Your task to perform on an android device: Open accessibility settings Image 0: 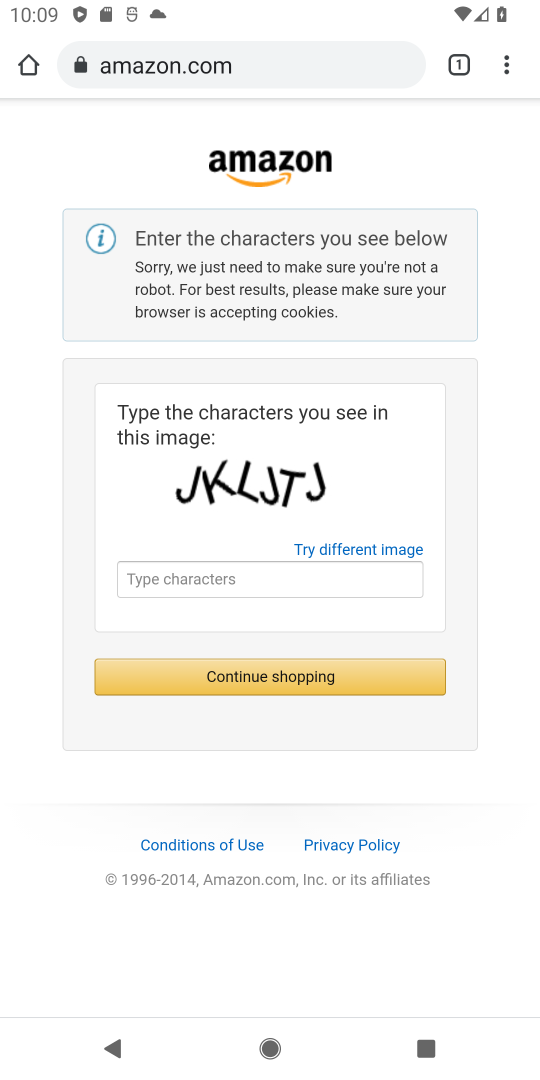
Step 0: press home button
Your task to perform on an android device: Open accessibility settings Image 1: 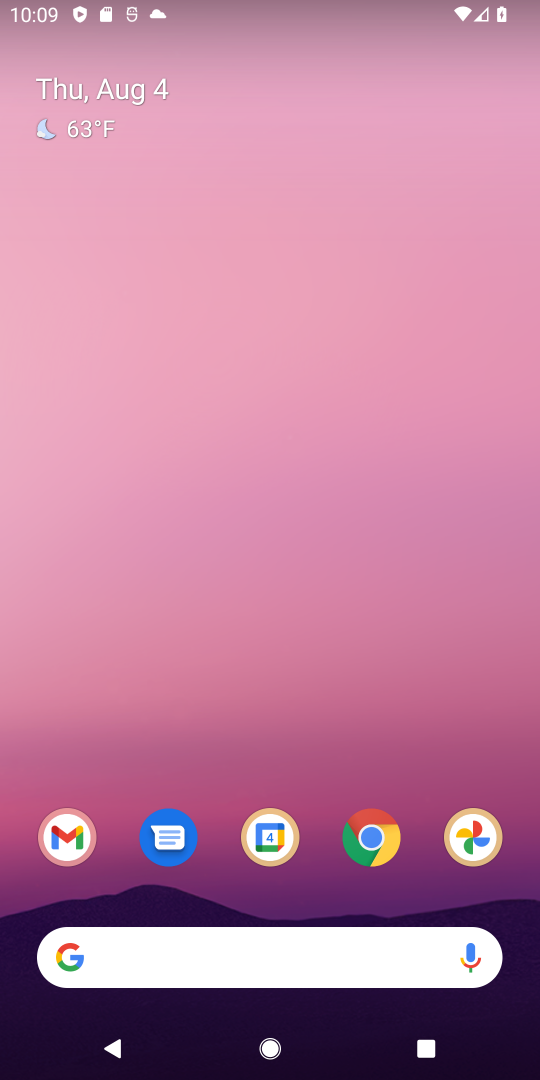
Step 1: drag from (325, 903) to (321, 120)
Your task to perform on an android device: Open accessibility settings Image 2: 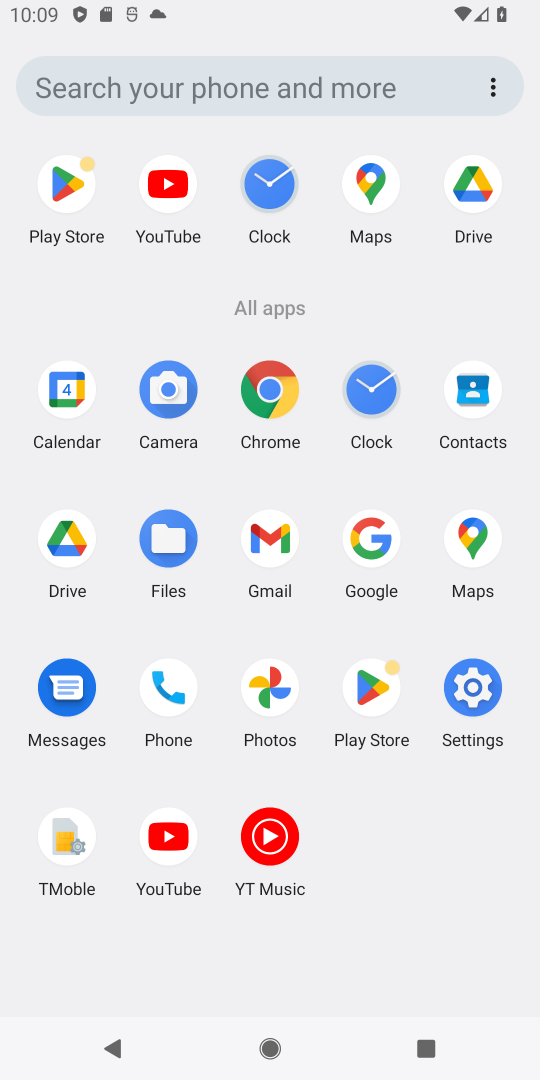
Step 2: click (469, 685)
Your task to perform on an android device: Open accessibility settings Image 3: 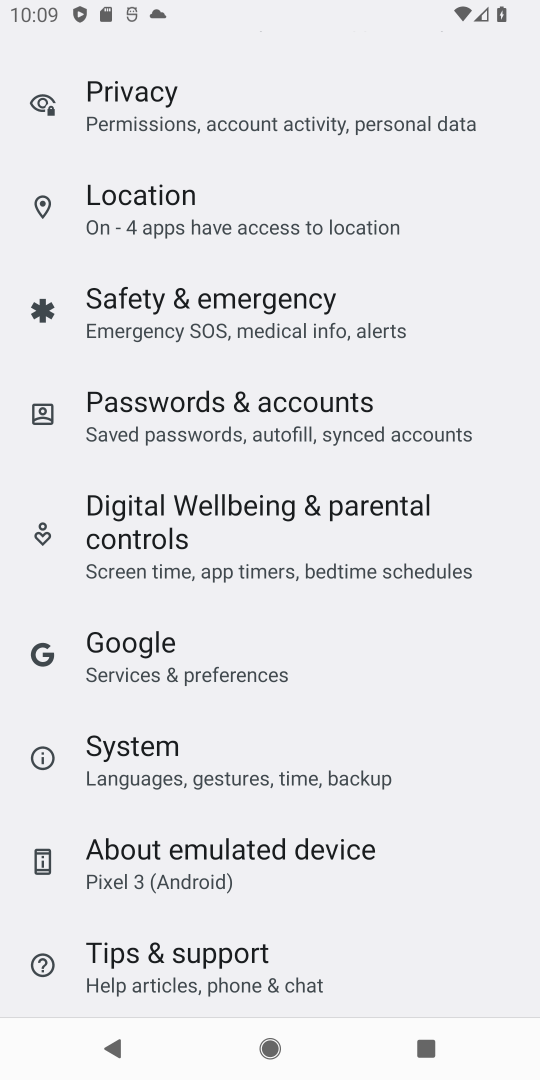
Step 3: drag from (206, 912) to (254, 469)
Your task to perform on an android device: Open accessibility settings Image 4: 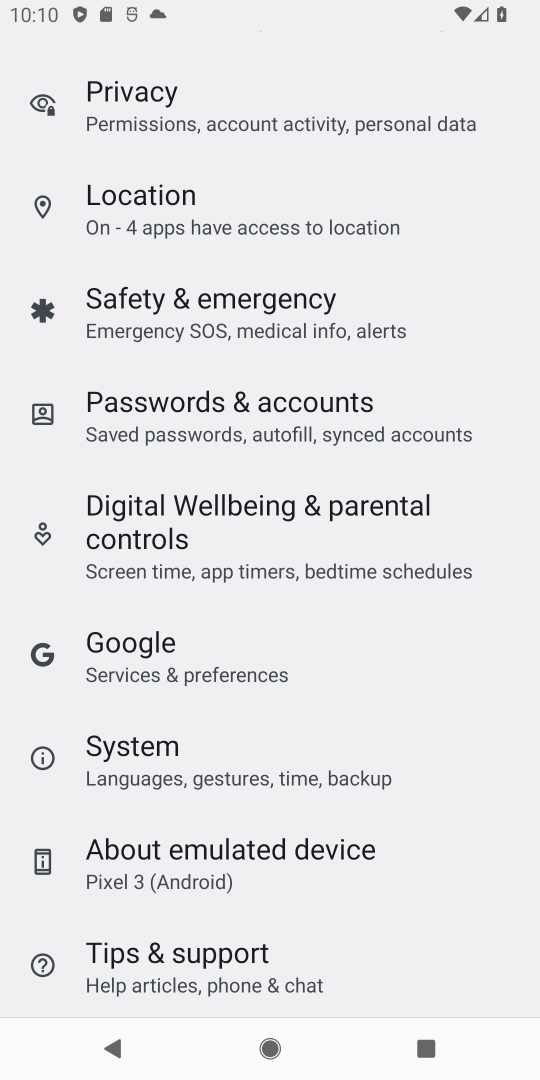
Step 4: drag from (212, 254) to (229, 942)
Your task to perform on an android device: Open accessibility settings Image 5: 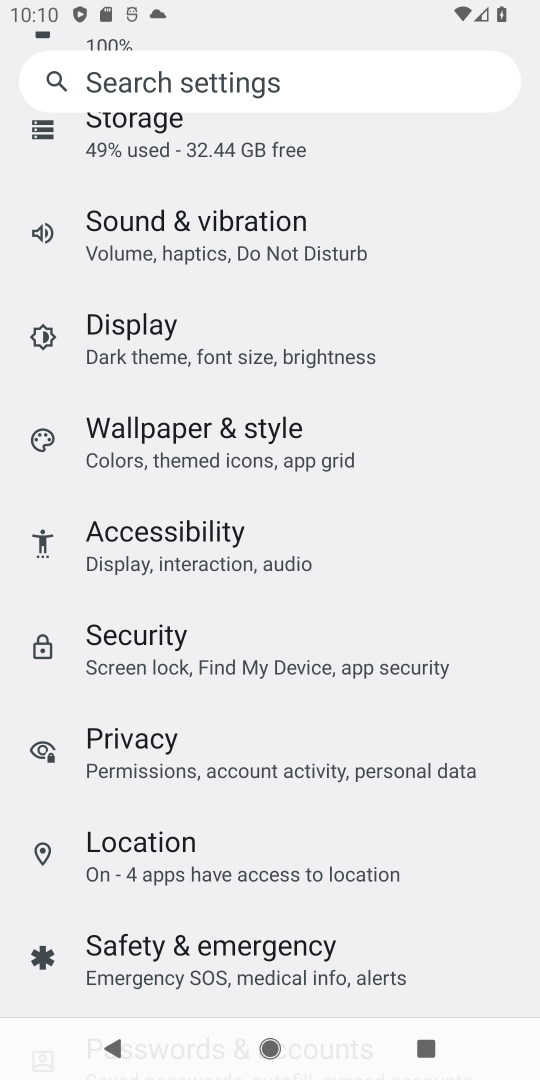
Step 5: click (270, 526)
Your task to perform on an android device: Open accessibility settings Image 6: 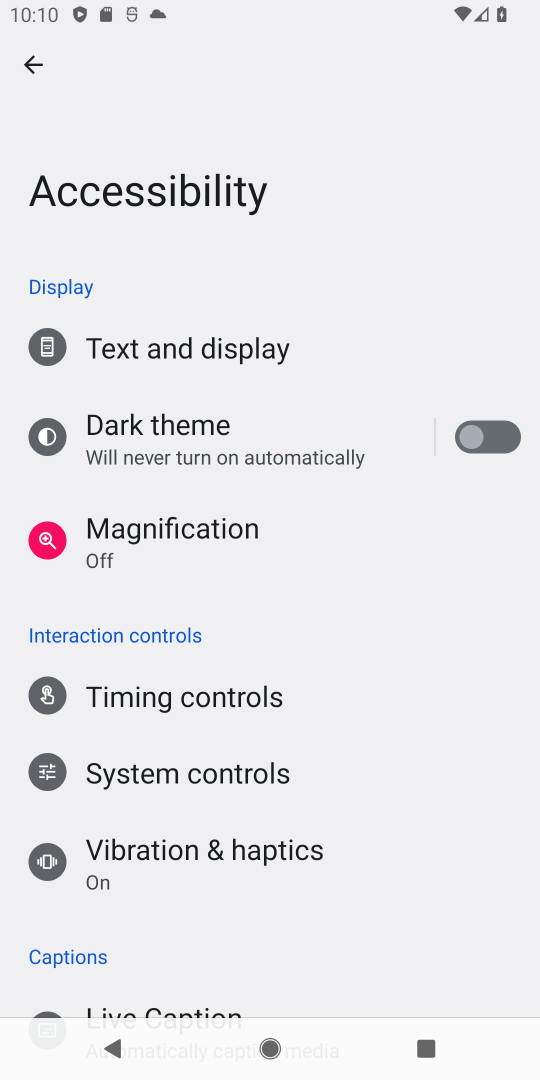
Step 6: task complete